Your task to perform on an android device: Open calendar and show me the fourth week of next month Image 0: 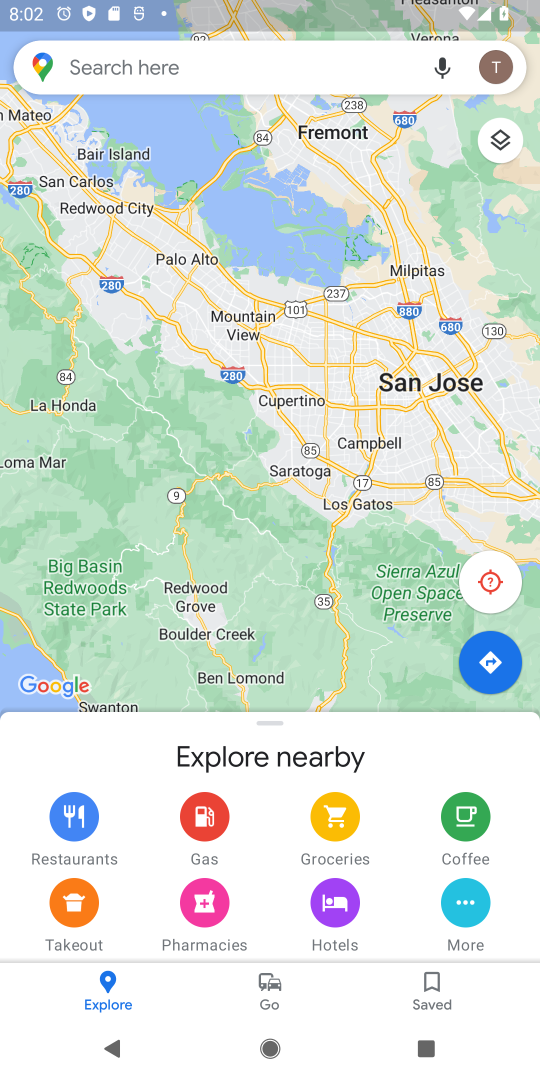
Step 0: press back button
Your task to perform on an android device: Open calendar and show me the fourth week of next month Image 1: 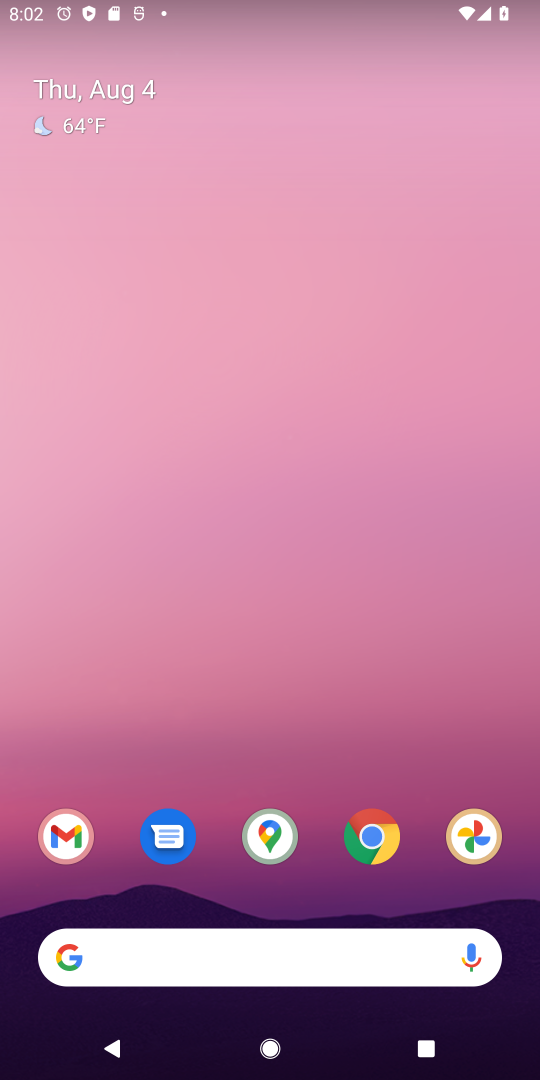
Step 1: drag from (189, 867) to (270, 27)
Your task to perform on an android device: Open calendar and show me the fourth week of next month Image 2: 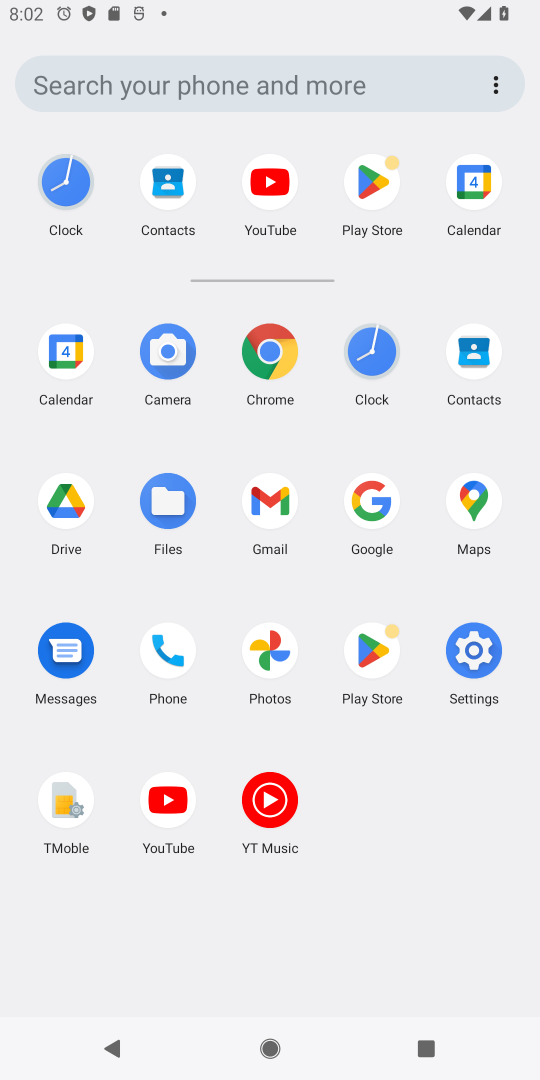
Step 2: click (476, 187)
Your task to perform on an android device: Open calendar and show me the fourth week of next month Image 3: 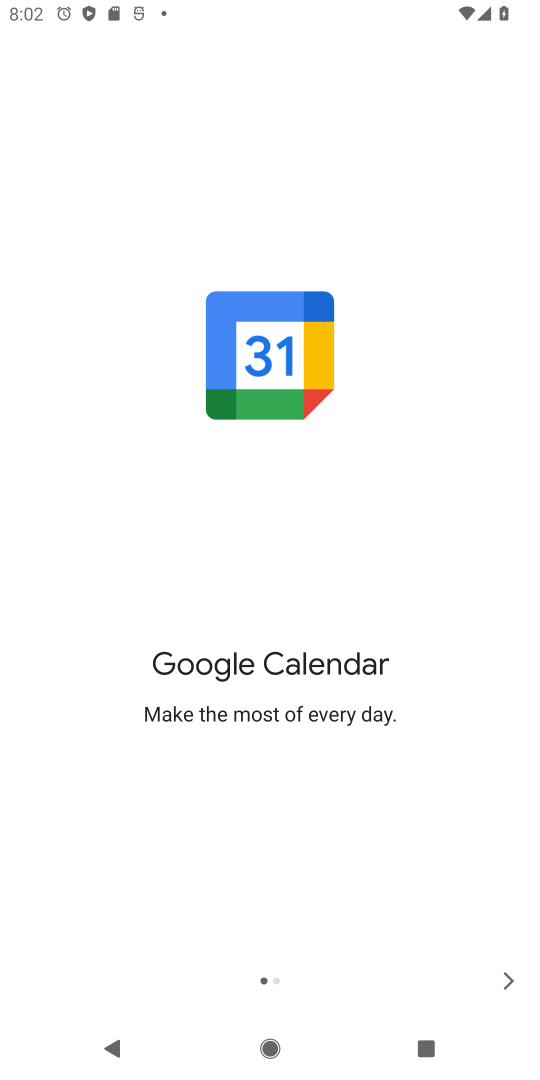
Step 3: click (515, 970)
Your task to perform on an android device: Open calendar and show me the fourth week of next month Image 4: 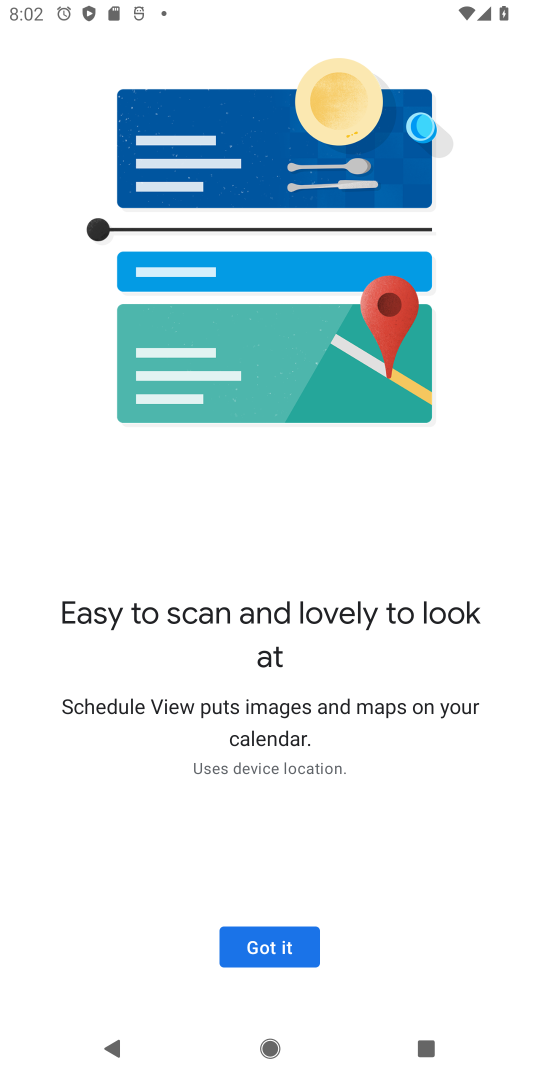
Step 4: click (273, 953)
Your task to perform on an android device: Open calendar and show me the fourth week of next month Image 5: 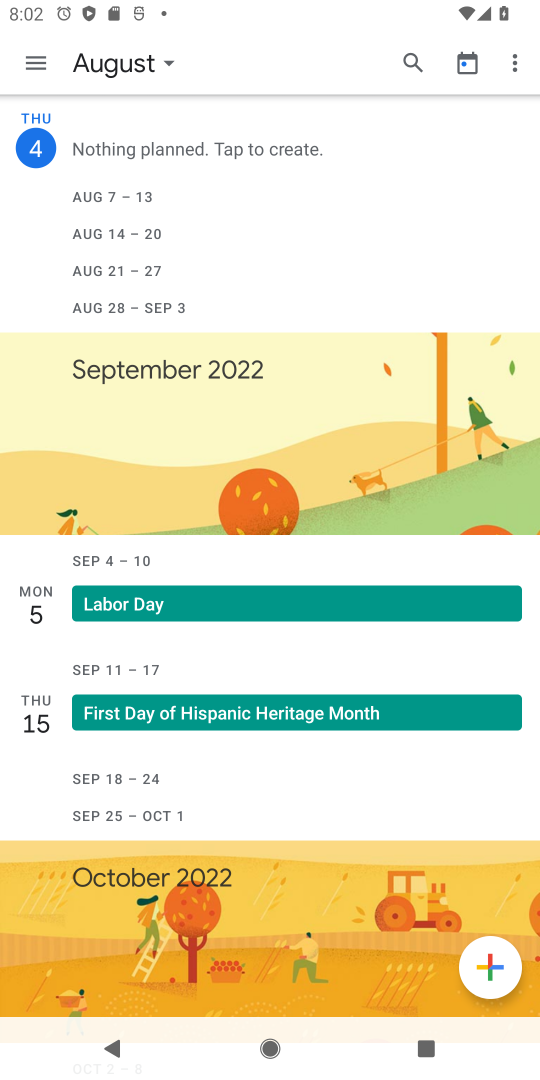
Step 5: click (149, 71)
Your task to perform on an android device: Open calendar and show me the fourth week of next month Image 6: 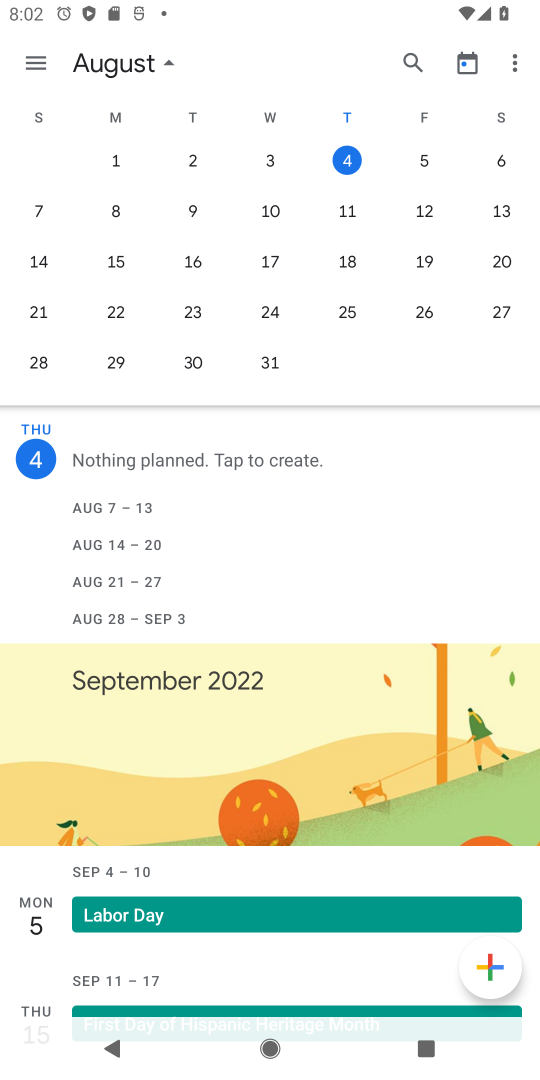
Step 6: drag from (511, 212) to (1, 228)
Your task to perform on an android device: Open calendar and show me the fourth week of next month Image 7: 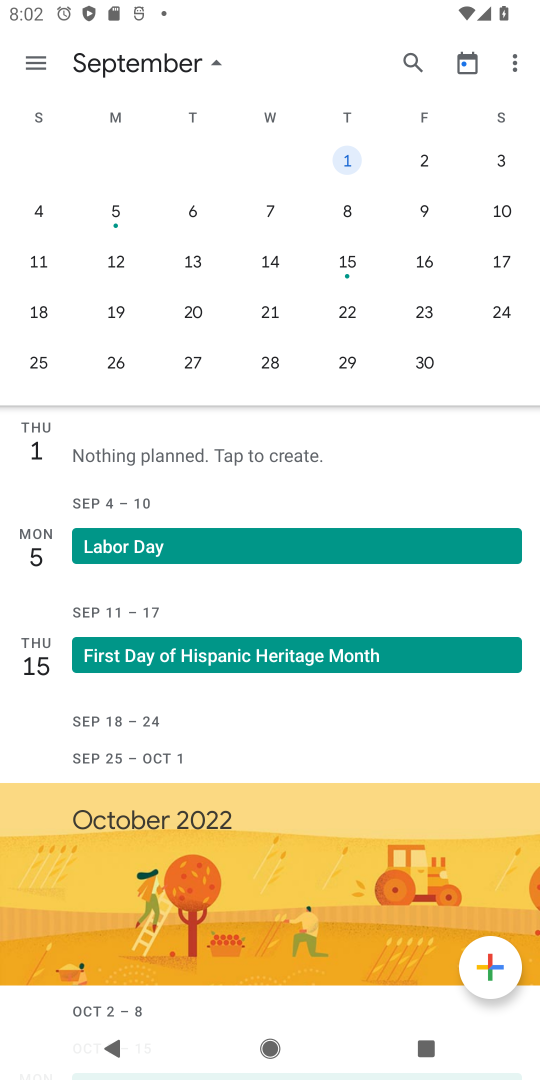
Step 7: click (111, 313)
Your task to perform on an android device: Open calendar and show me the fourth week of next month Image 8: 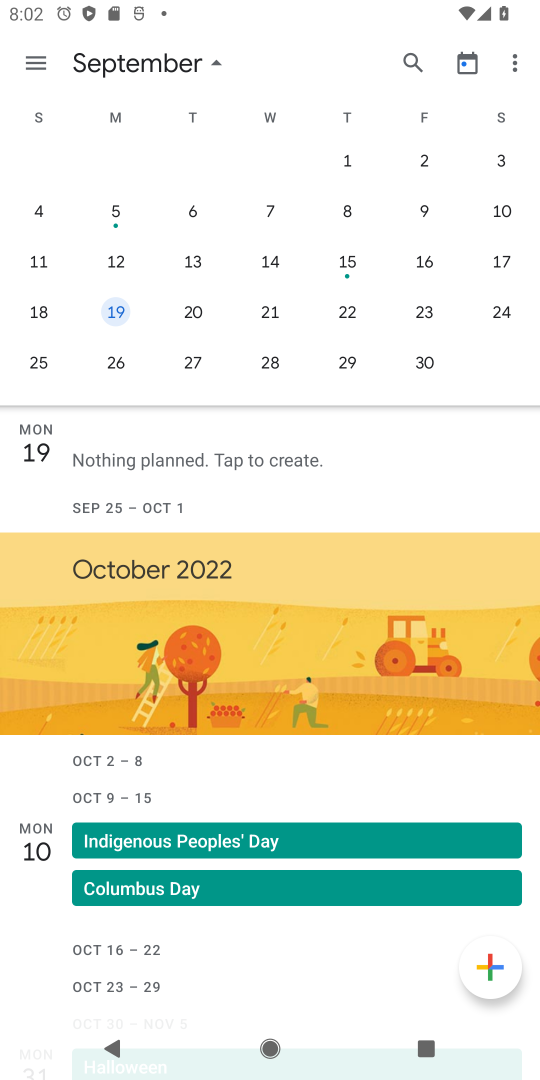
Step 8: task complete